Your task to perform on an android device: see creations saved in the google photos Image 0: 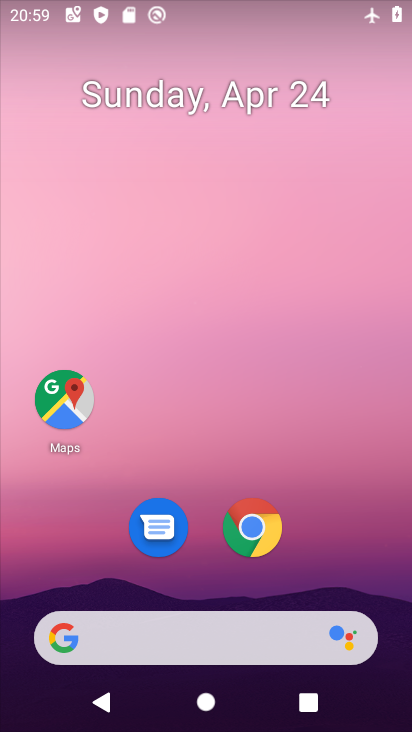
Step 0: drag from (390, 568) to (410, 28)
Your task to perform on an android device: see creations saved in the google photos Image 1: 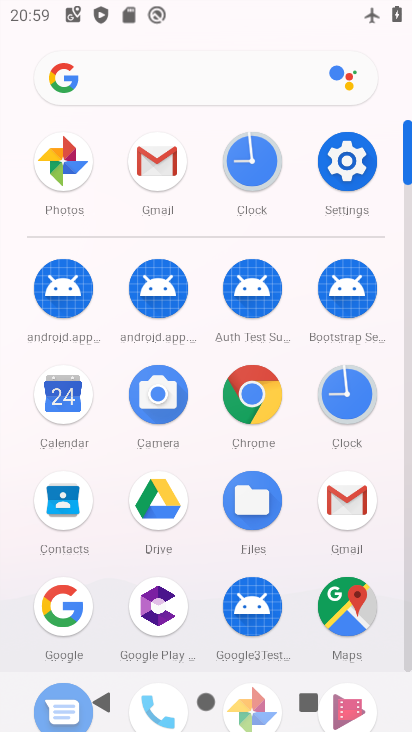
Step 1: drag from (407, 603) to (411, 560)
Your task to perform on an android device: see creations saved in the google photos Image 2: 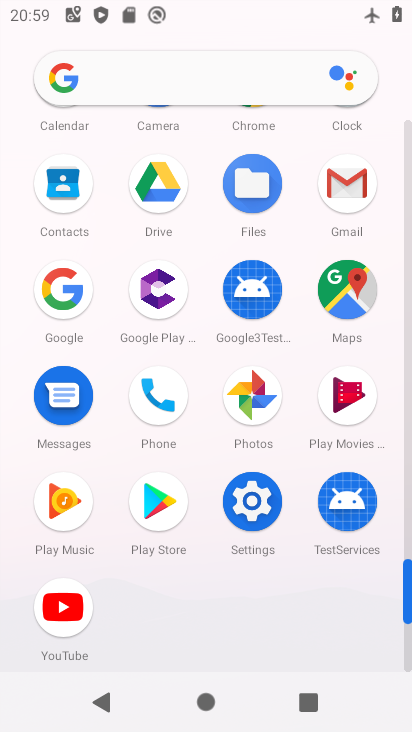
Step 2: click (248, 403)
Your task to perform on an android device: see creations saved in the google photos Image 3: 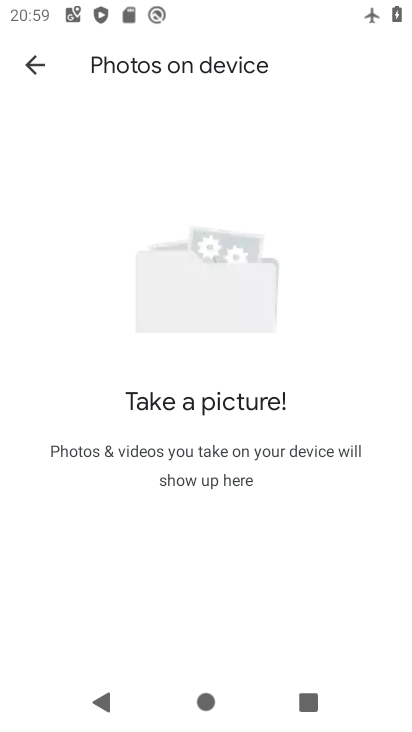
Step 3: click (36, 69)
Your task to perform on an android device: see creations saved in the google photos Image 4: 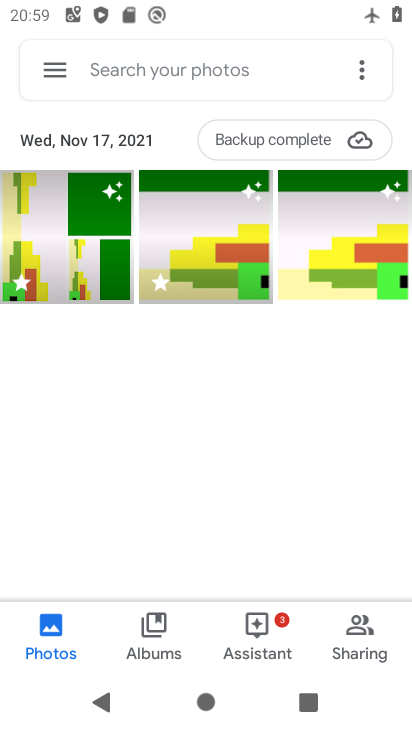
Step 4: click (147, 66)
Your task to perform on an android device: see creations saved in the google photos Image 5: 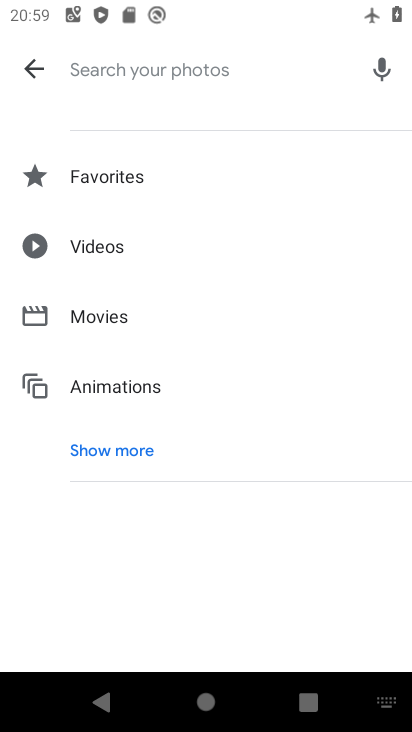
Step 5: click (129, 457)
Your task to perform on an android device: see creations saved in the google photos Image 6: 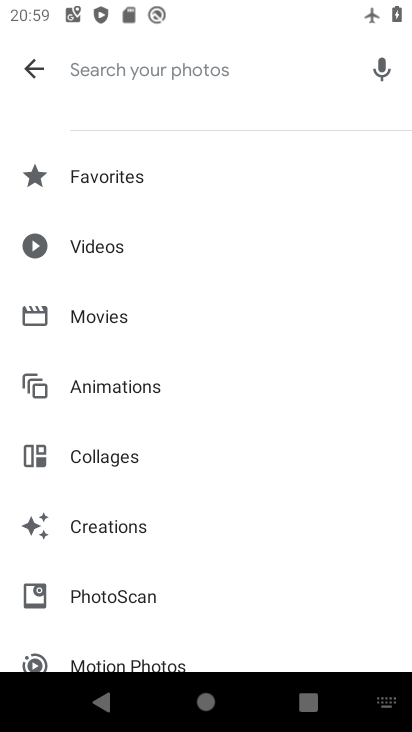
Step 6: click (124, 522)
Your task to perform on an android device: see creations saved in the google photos Image 7: 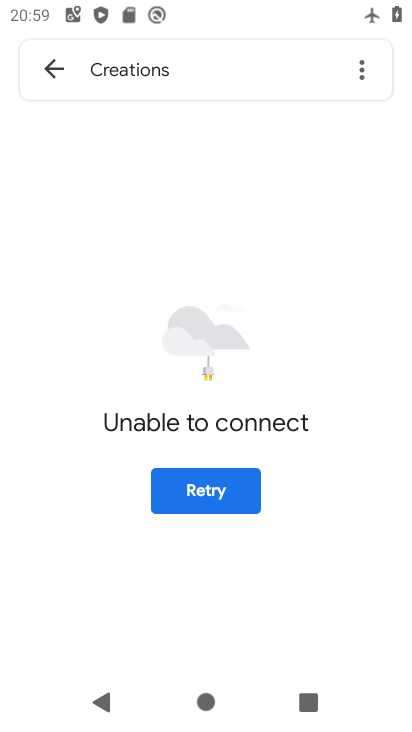
Step 7: task complete